Your task to perform on an android device: Open calendar and show me the second week of next month Image 0: 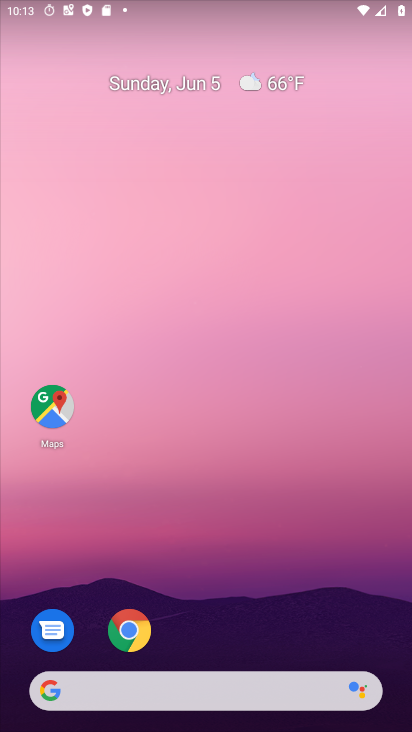
Step 0: drag from (203, 729) to (208, 175)
Your task to perform on an android device: Open calendar and show me the second week of next month Image 1: 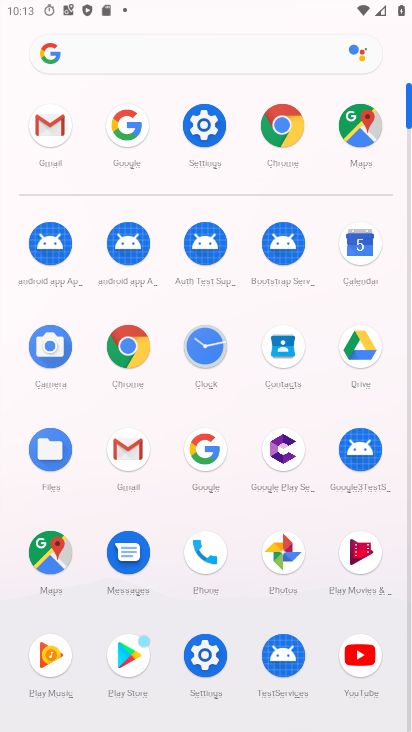
Step 1: click (357, 243)
Your task to perform on an android device: Open calendar and show me the second week of next month Image 2: 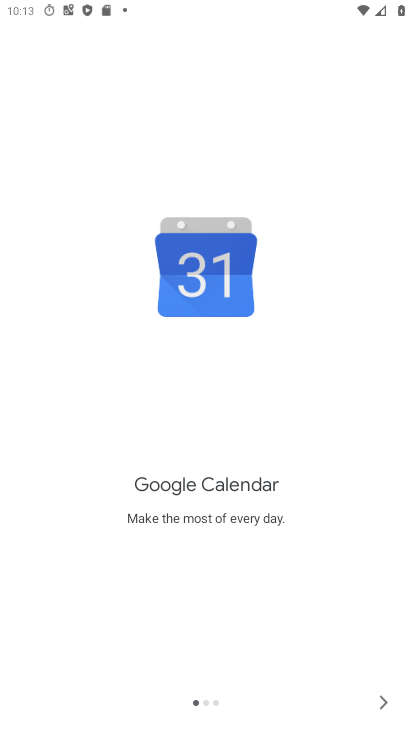
Step 2: click (381, 704)
Your task to perform on an android device: Open calendar and show me the second week of next month Image 3: 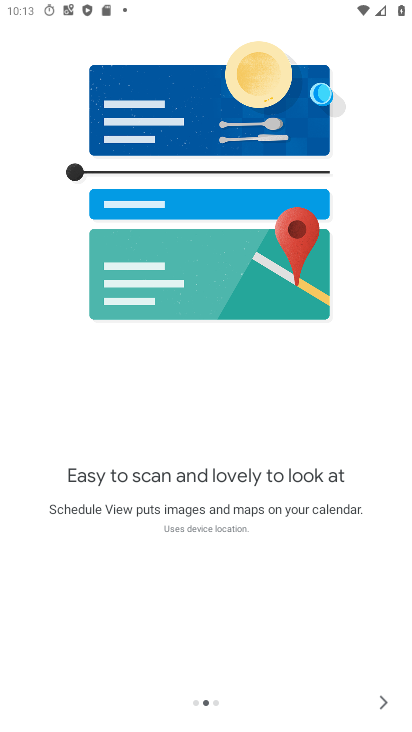
Step 3: click (381, 704)
Your task to perform on an android device: Open calendar and show me the second week of next month Image 4: 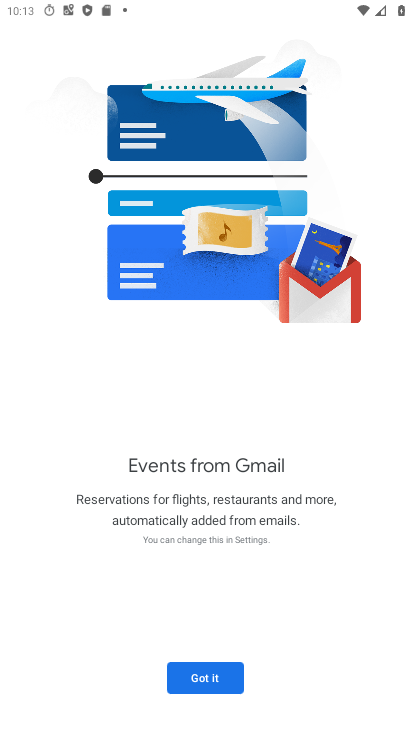
Step 4: click (182, 673)
Your task to perform on an android device: Open calendar and show me the second week of next month Image 5: 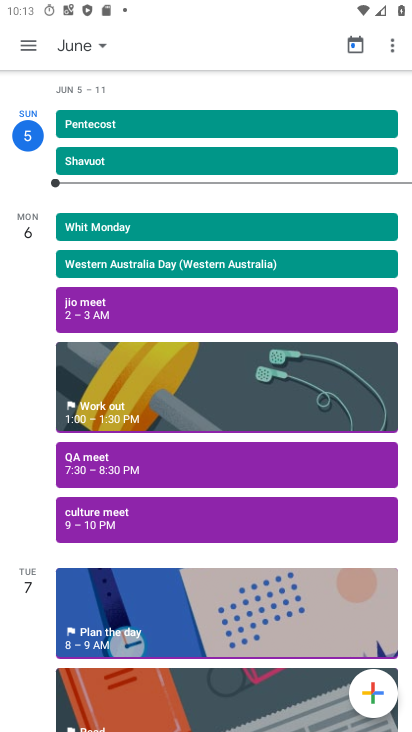
Step 5: click (99, 40)
Your task to perform on an android device: Open calendar and show me the second week of next month Image 6: 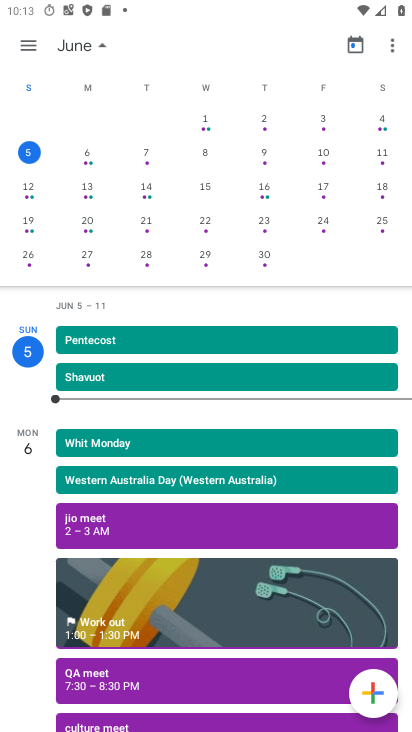
Step 6: drag from (341, 202) to (19, 171)
Your task to perform on an android device: Open calendar and show me the second week of next month Image 7: 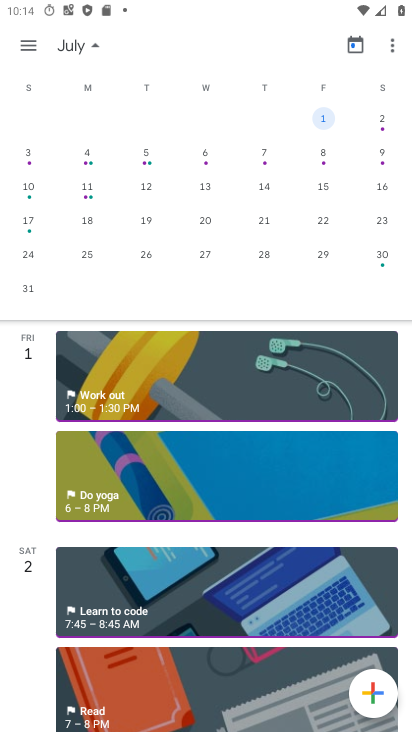
Step 7: click (86, 186)
Your task to perform on an android device: Open calendar and show me the second week of next month Image 8: 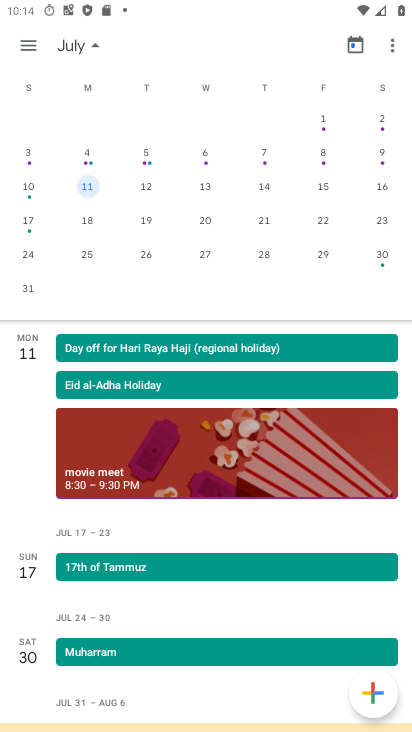
Step 8: click (30, 47)
Your task to perform on an android device: Open calendar and show me the second week of next month Image 9: 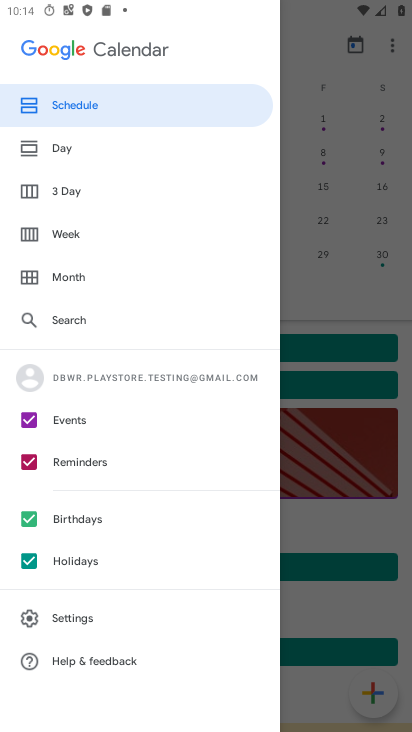
Step 9: click (72, 232)
Your task to perform on an android device: Open calendar and show me the second week of next month Image 10: 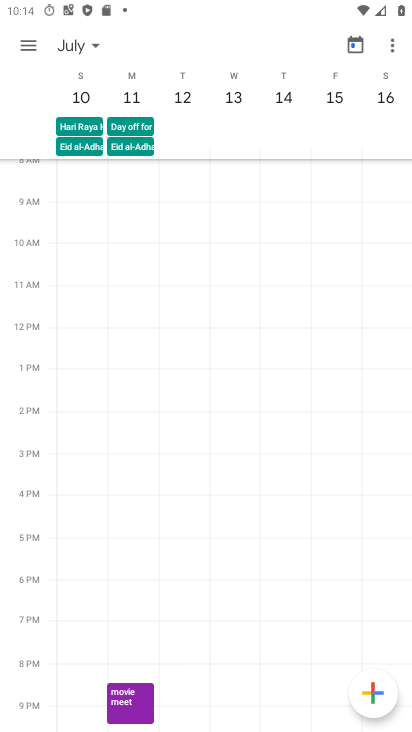
Step 10: task complete